Your task to perform on an android device: Open Chrome and go to settings Image 0: 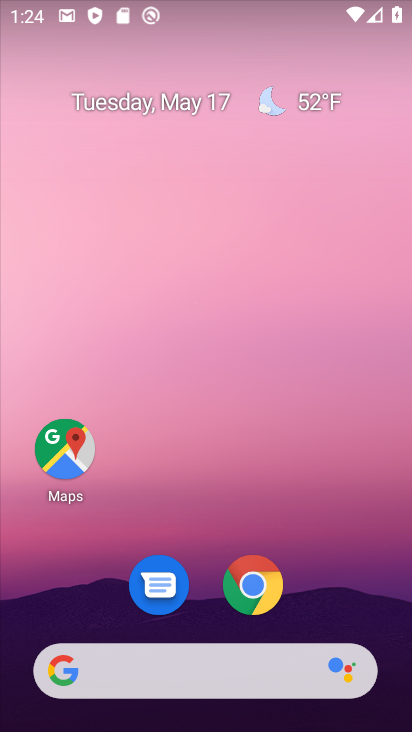
Step 0: click (269, 589)
Your task to perform on an android device: Open Chrome and go to settings Image 1: 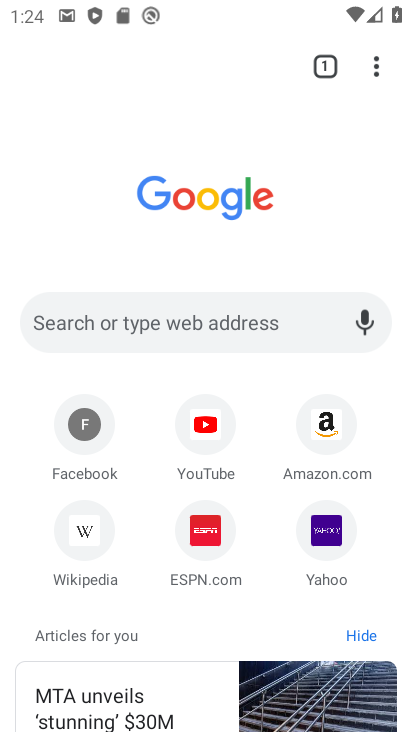
Step 1: click (375, 60)
Your task to perform on an android device: Open Chrome and go to settings Image 2: 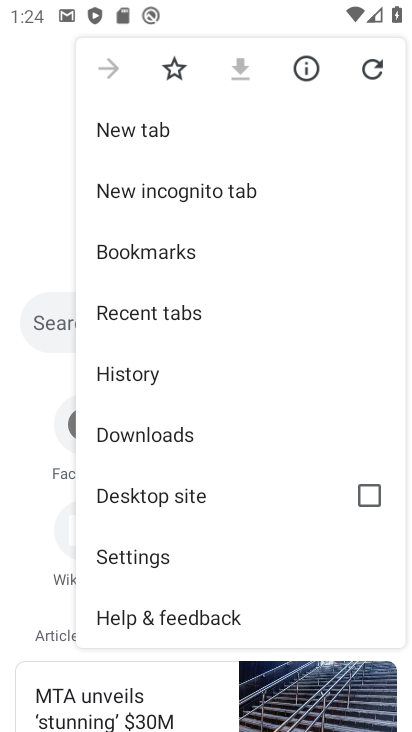
Step 2: click (169, 545)
Your task to perform on an android device: Open Chrome and go to settings Image 3: 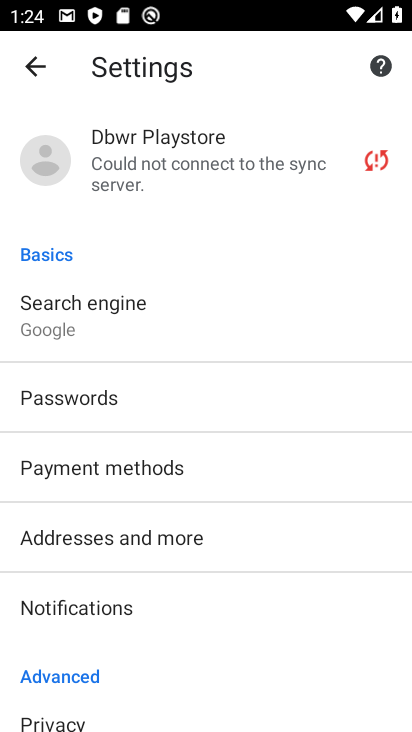
Step 3: task complete